Your task to perform on an android device: Go to Google maps Image 0: 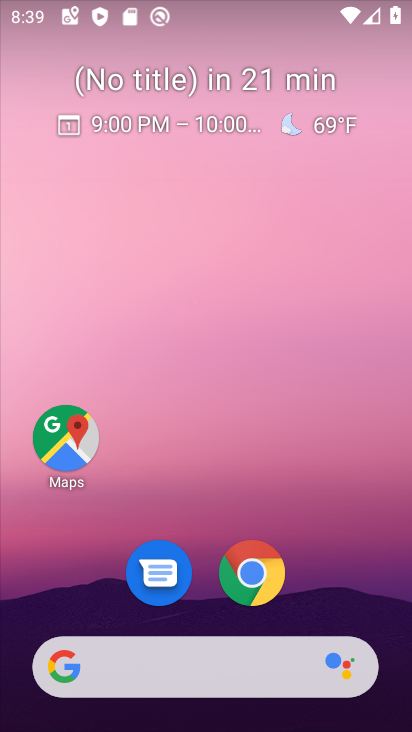
Step 0: click (79, 453)
Your task to perform on an android device: Go to Google maps Image 1: 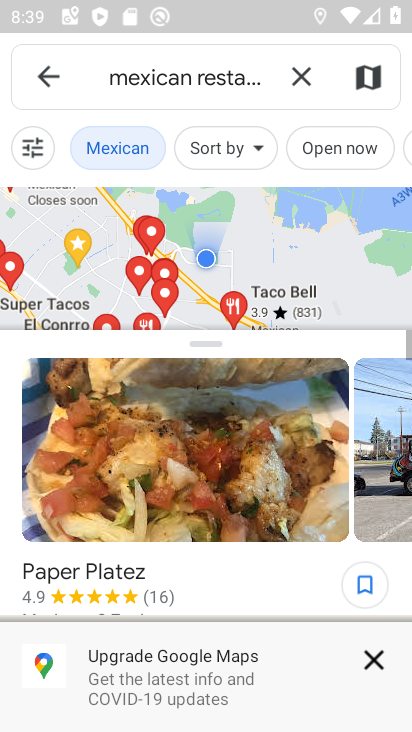
Step 1: click (35, 67)
Your task to perform on an android device: Go to Google maps Image 2: 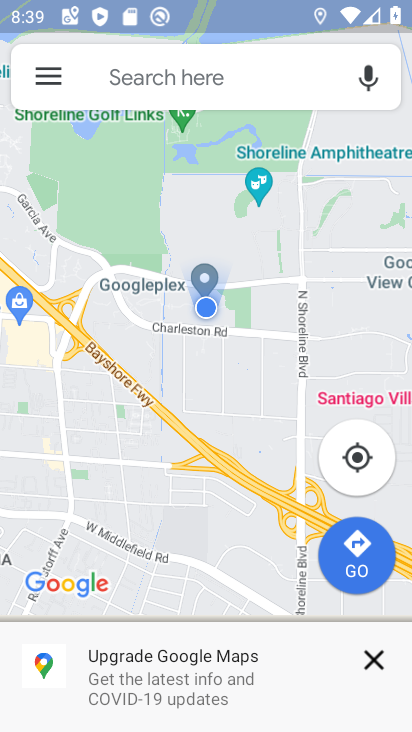
Step 2: task complete